Your task to perform on an android device: Open eBay Image 0: 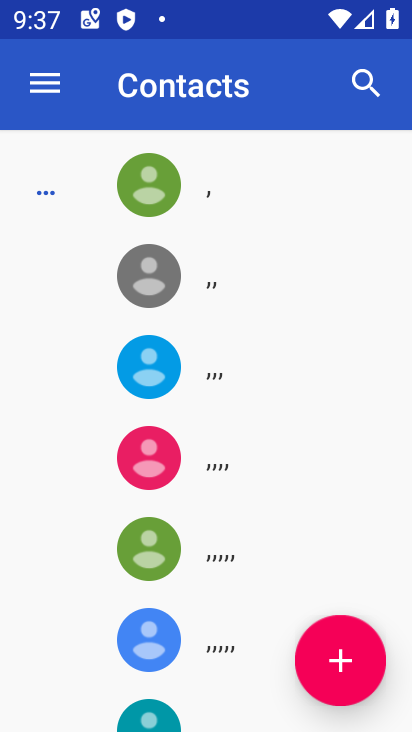
Step 0: press home button
Your task to perform on an android device: Open eBay Image 1: 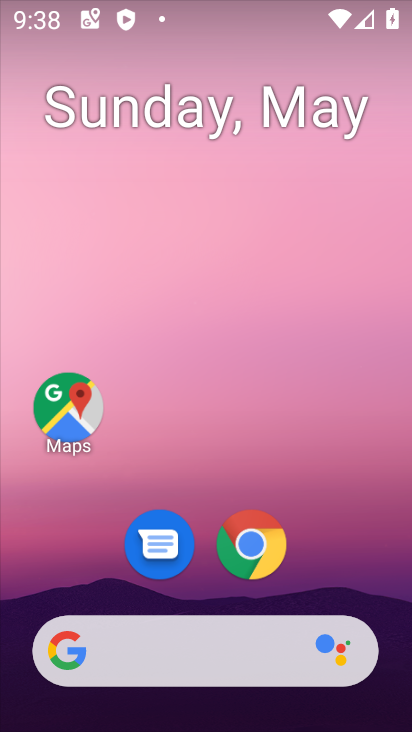
Step 1: click (263, 550)
Your task to perform on an android device: Open eBay Image 2: 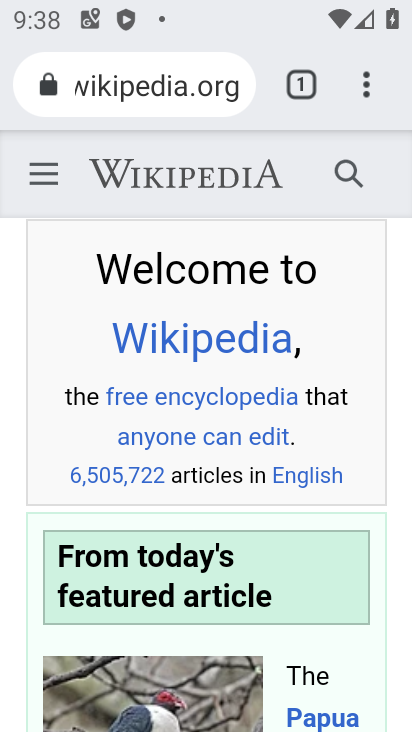
Step 2: click (189, 68)
Your task to perform on an android device: Open eBay Image 3: 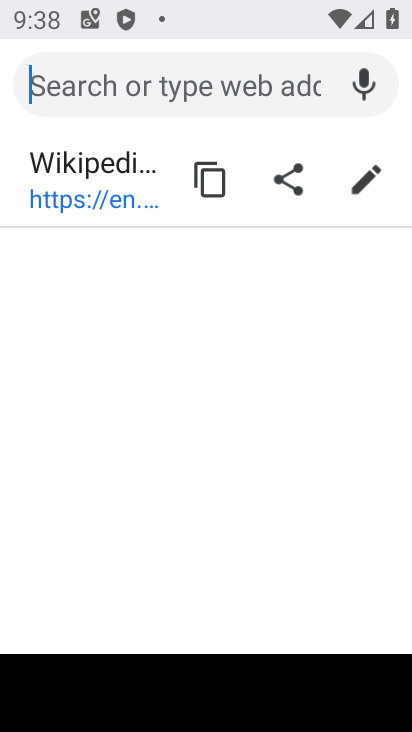
Step 3: type "ebay"
Your task to perform on an android device: Open eBay Image 4: 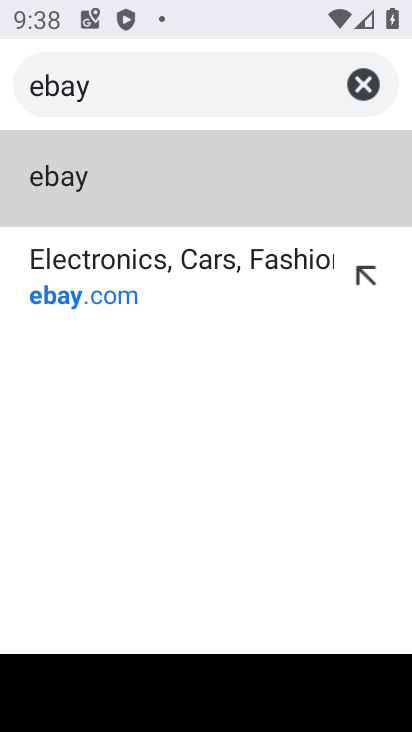
Step 4: click (73, 302)
Your task to perform on an android device: Open eBay Image 5: 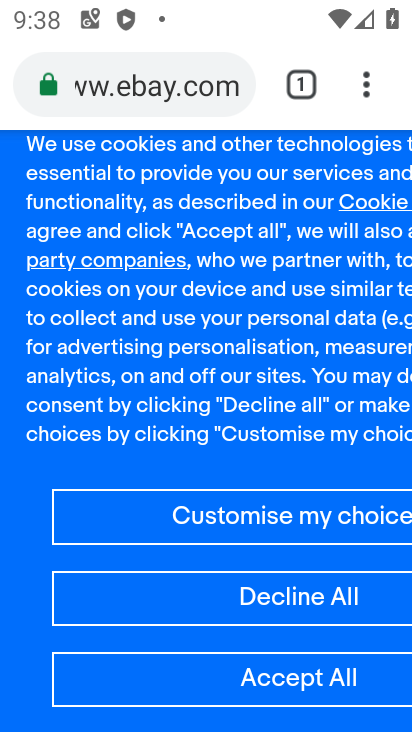
Step 5: task complete